Your task to perform on an android device: turn off priority inbox in the gmail app Image 0: 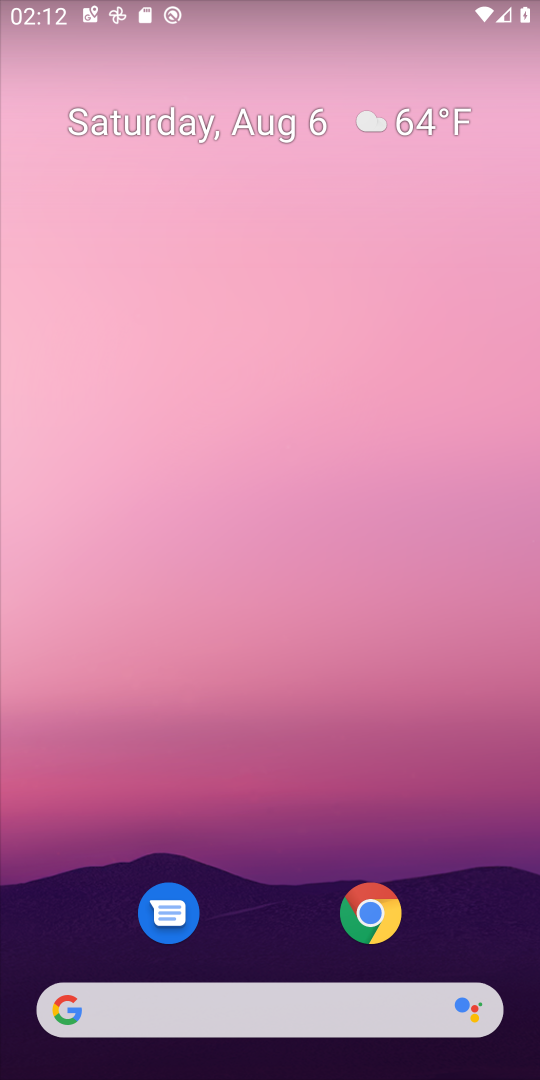
Step 0: press home button
Your task to perform on an android device: turn off priority inbox in the gmail app Image 1: 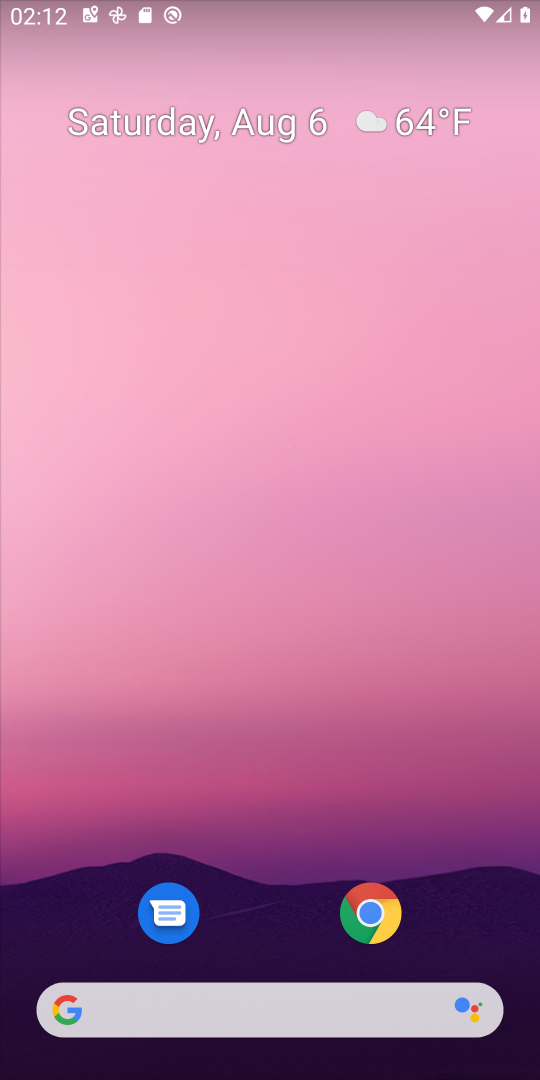
Step 1: drag from (471, 922) to (465, 304)
Your task to perform on an android device: turn off priority inbox in the gmail app Image 2: 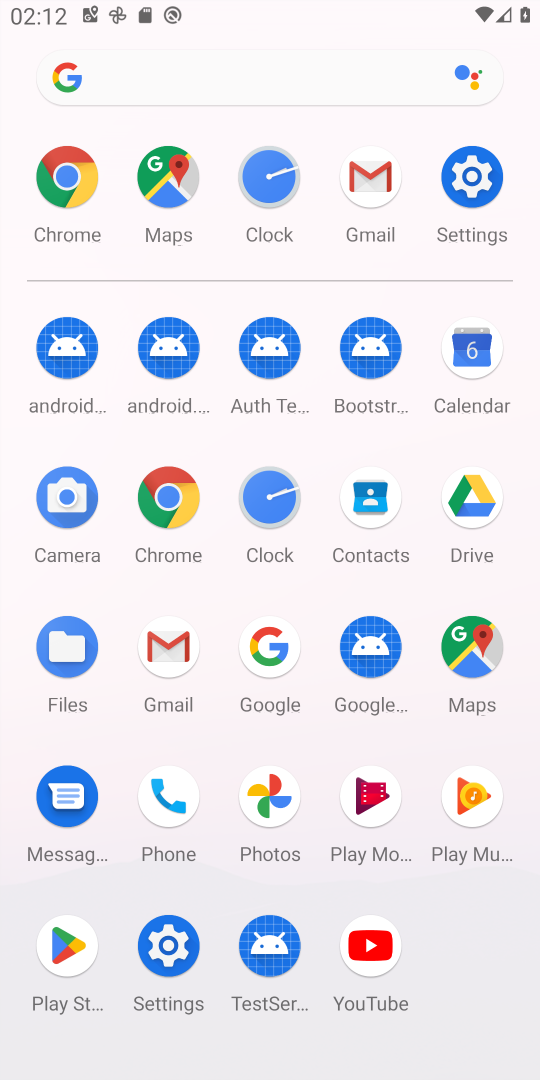
Step 2: click (360, 174)
Your task to perform on an android device: turn off priority inbox in the gmail app Image 3: 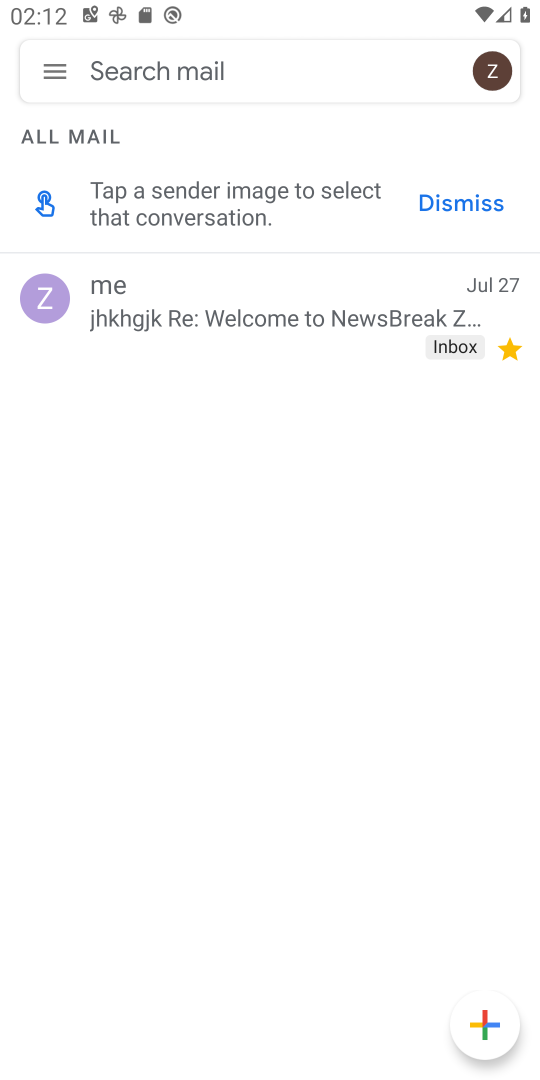
Step 3: click (49, 71)
Your task to perform on an android device: turn off priority inbox in the gmail app Image 4: 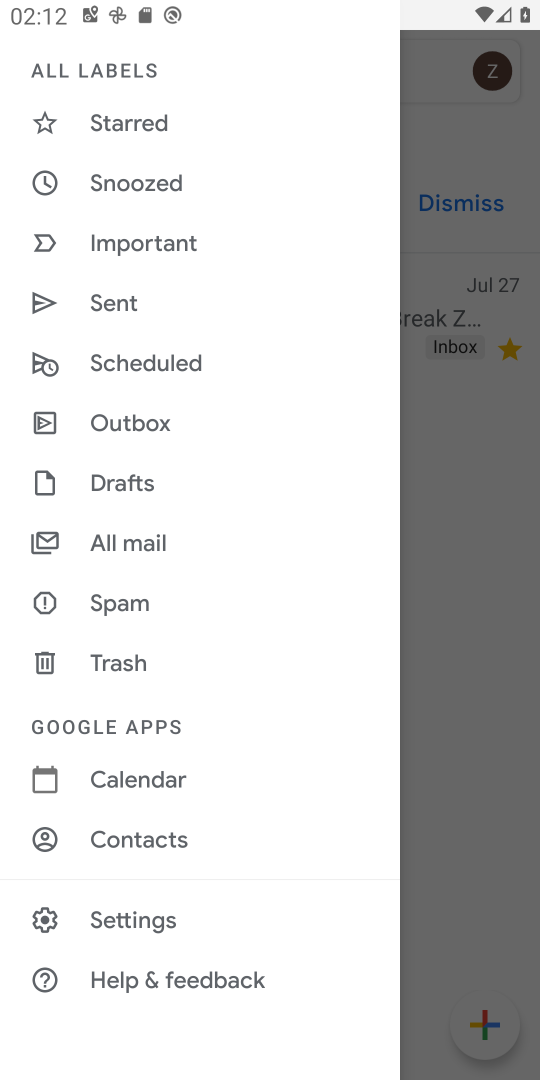
Step 4: click (147, 922)
Your task to perform on an android device: turn off priority inbox in the gmail app Image 5: 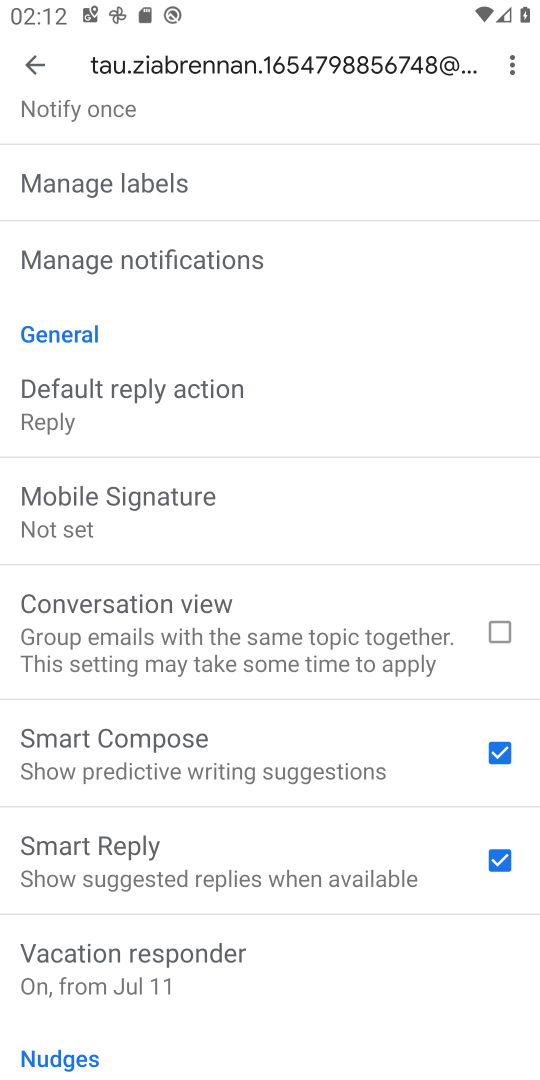
Step 5: drag from (380, 510) to (396, 602)
Your task to perform on an android device: turn off priority inbox in the gmail app Image 6: 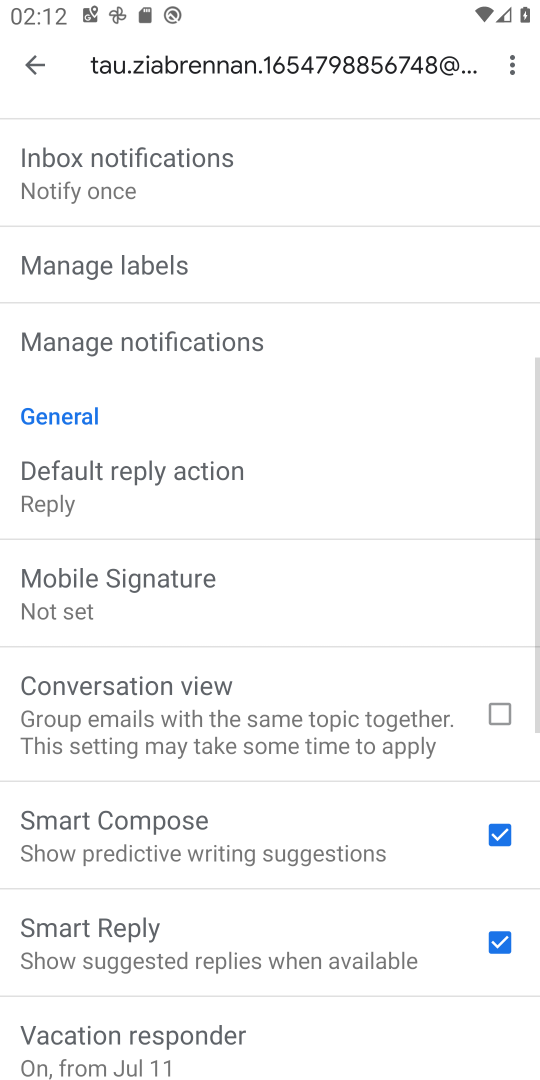
Step 6: drag from (402, 414) to (419, 569)
Your task to perform on an android device: turn off priority inbox in the gmail app Image 7: 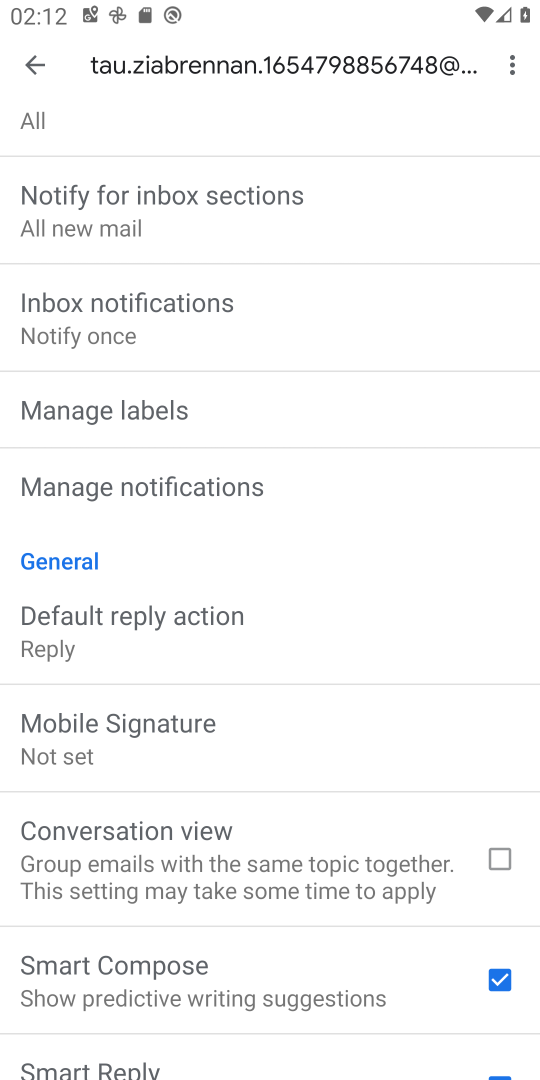
Step 7: drag from (408, 350) to (402, 512)
Your task to perform on an android device: turn off priority inbox in the gmail app Image 8: 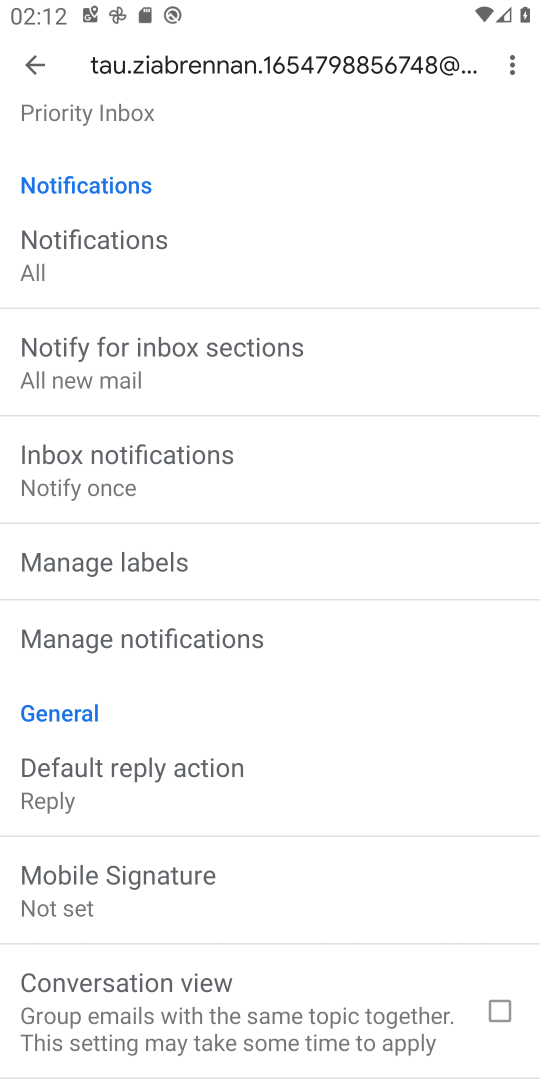
Step 8: drag from (364, 324) to (351, 493)
Your task to perform on an android device: turn off priority inbox in the gmail app Image 9: 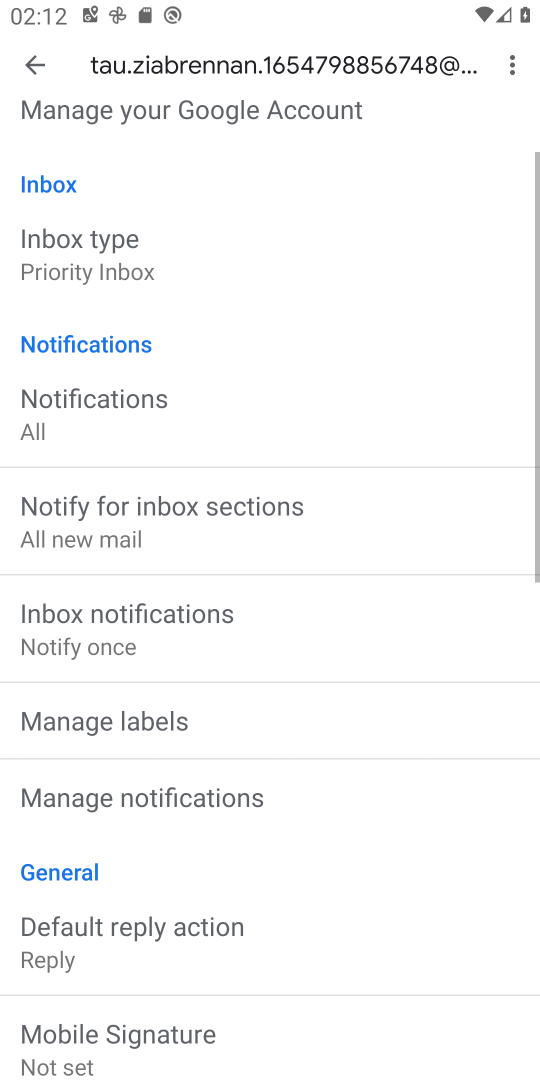
Step 9: drag from (352, 256) to (358, 553)
Your task to perform on an android device: turn off priority inbox in the gmail app Image 10: 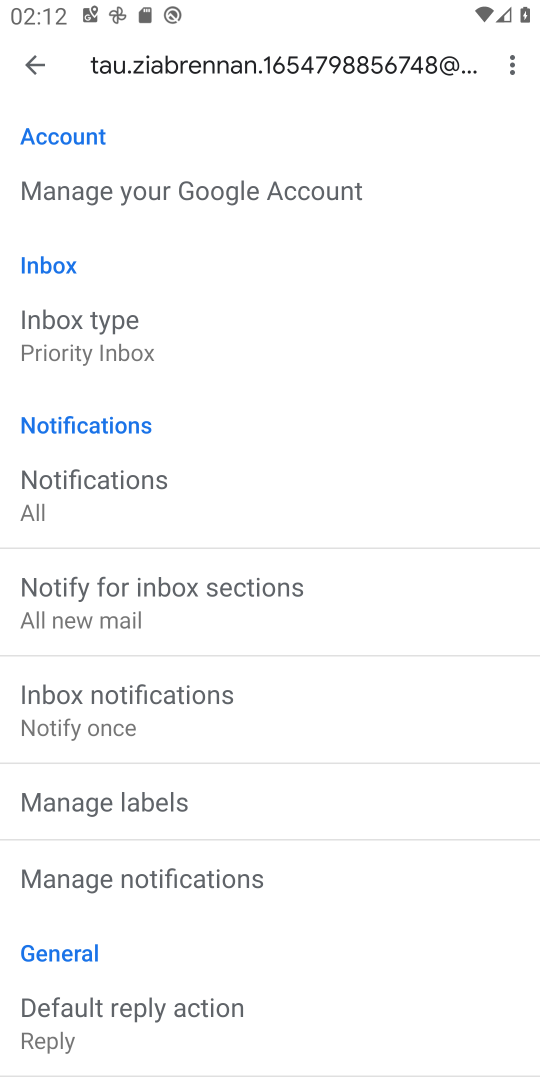
Step 10: click (158, 357)
Your task to perform on an android device: turn off priority inbox in the gmail app Image 11: 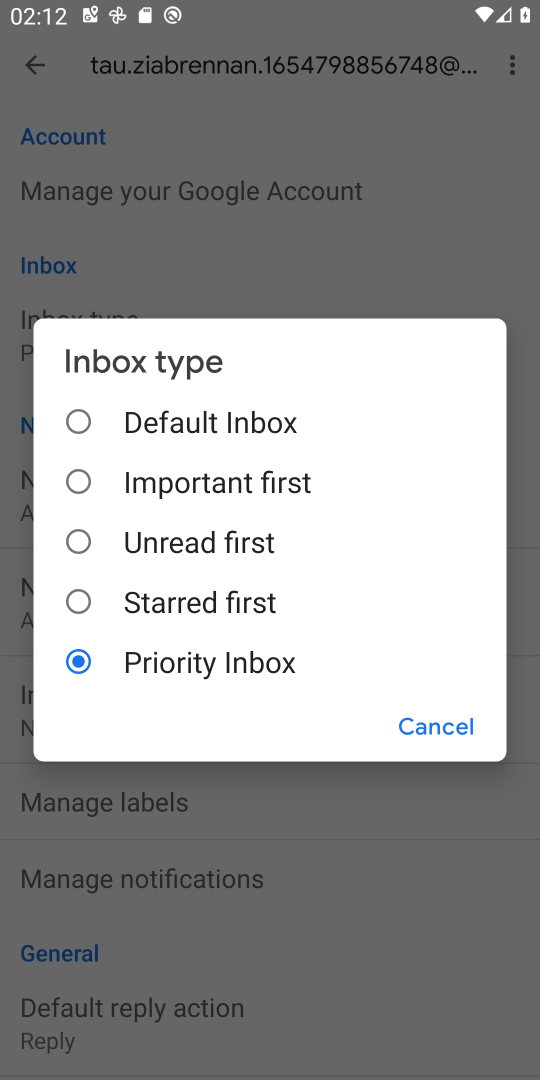
Step 11: click (258, 476)
Your task to perform on an android device: turn off priority inbox in the gmail app Image 12: 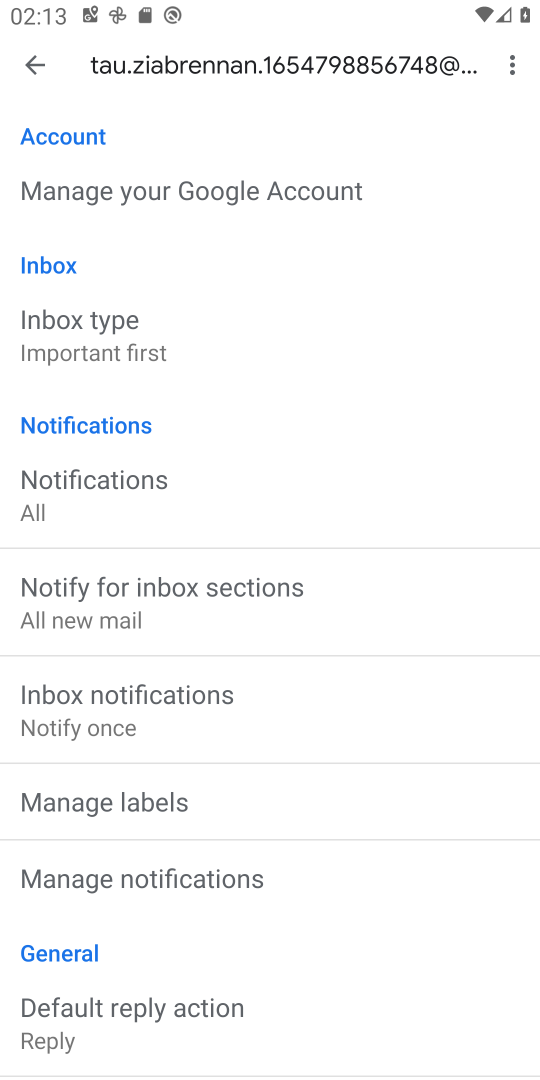
Step 12: task complete